Your task to perform on an android device: Go to accessibility settings Image 0: 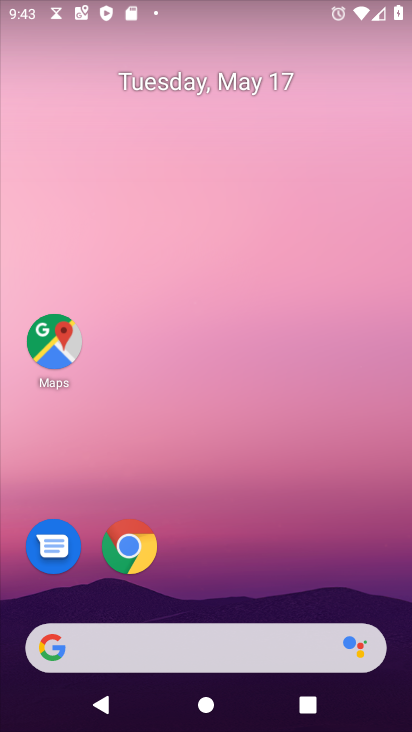
Step 0: drag from (224, 600) to (264, 20)
Your task to perform on an android device: Go to accessibility settings Image 1: 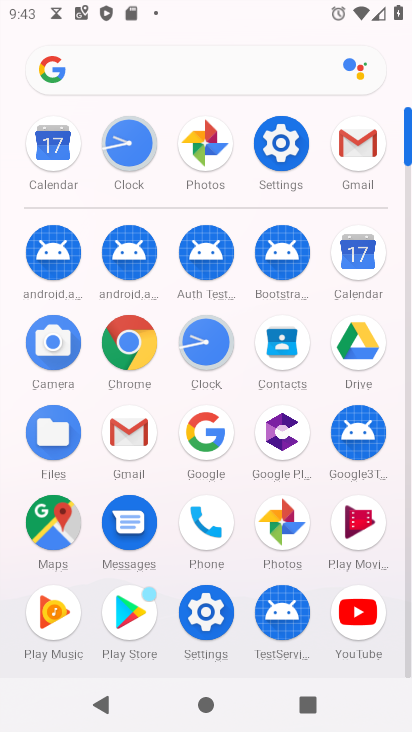
Step 1: click (266, 152)
Your task to perform on an android device: Go to accessibility settings Image 2: 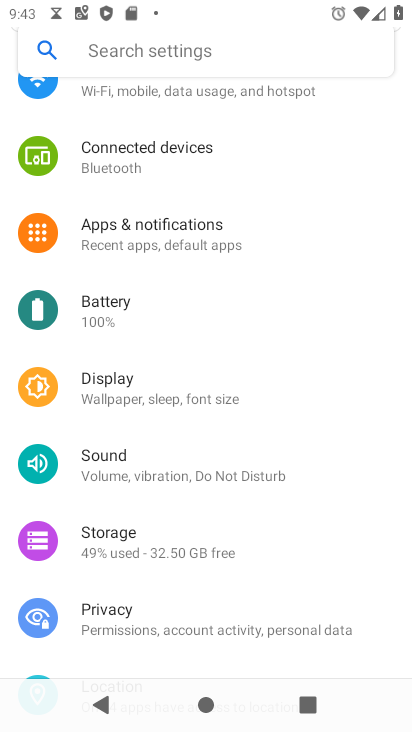
Step 2: drag from (187, 463) to (261, 250)
Your task to perform on an android device: Go to accessibility settings Image 3: 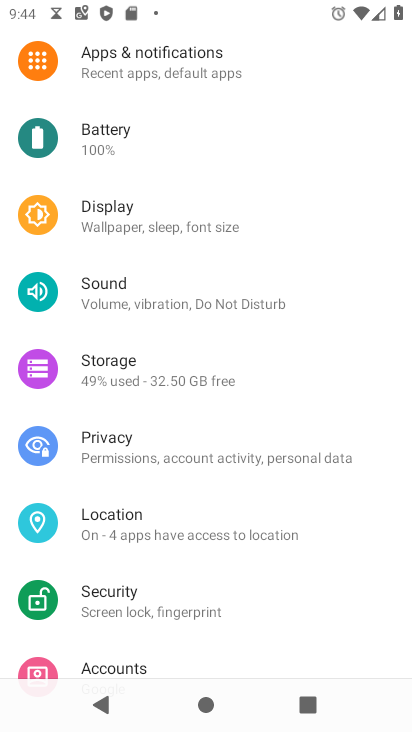
Step 3: drag from (183, 475) to (255, 339)
Your task to perform on an android device: Go to accessibility settings Image 4: 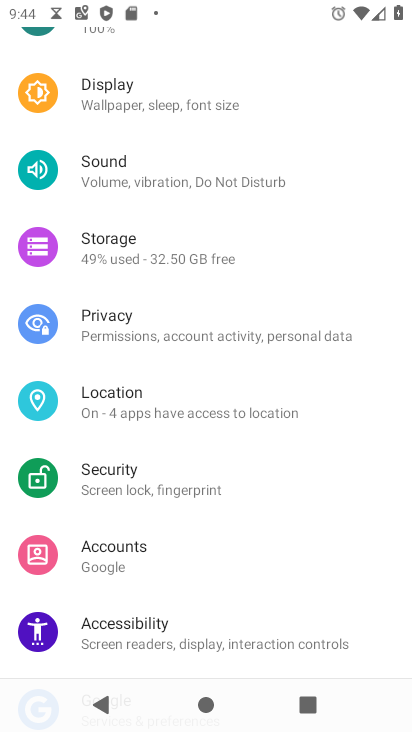
Step 4: drag from (212, 529) to (263, 404)
Your task to perform on an android device: Go to accessibility settings Image 5: 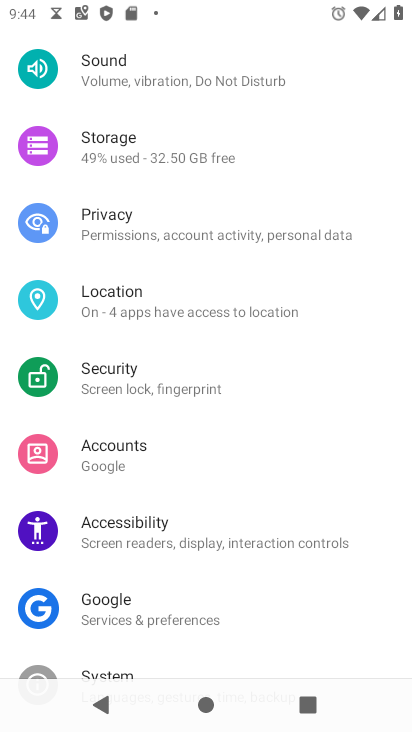
Step 5: drag from (177, 547) to (215, 419)
Your task to perform on an android device: Go to accessibility settings Image 6: 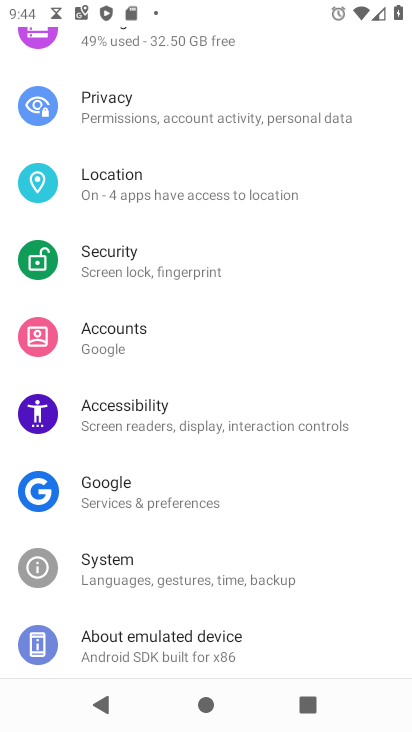
Step 6: drag from (175, 501) to (206, 392)
Your task to perform on an android device: Go to accessibility settings Image 7: 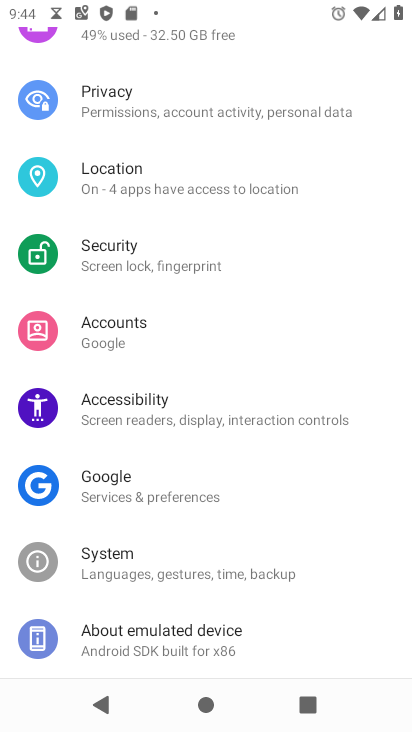
Step 7: drag from (176, 489) to (221, 382)
Your task to perform on an android device: Go to accessibility settings Image 8: 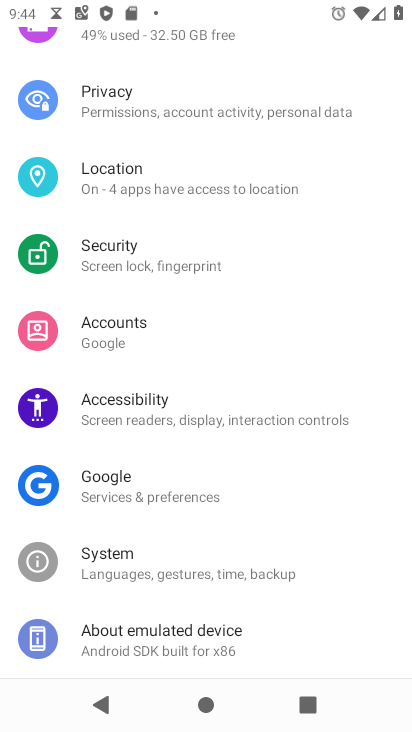
Step 8: click (138, 408)
Your task to perform on an android device: Go to accessibility settings Image 9: 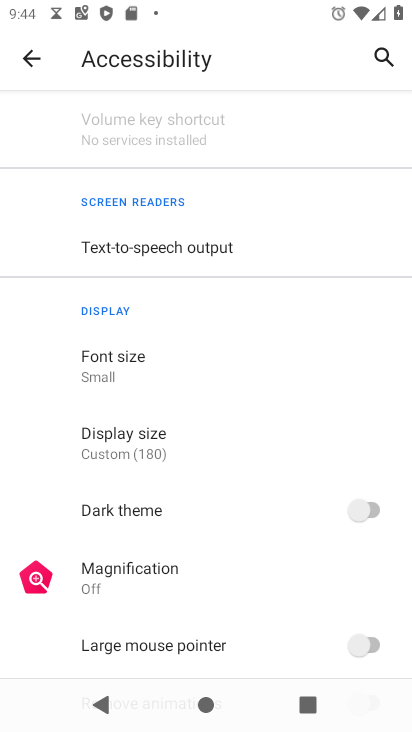
Step 9: task complete